Your task to perform on an android device: delete location history Image 0: 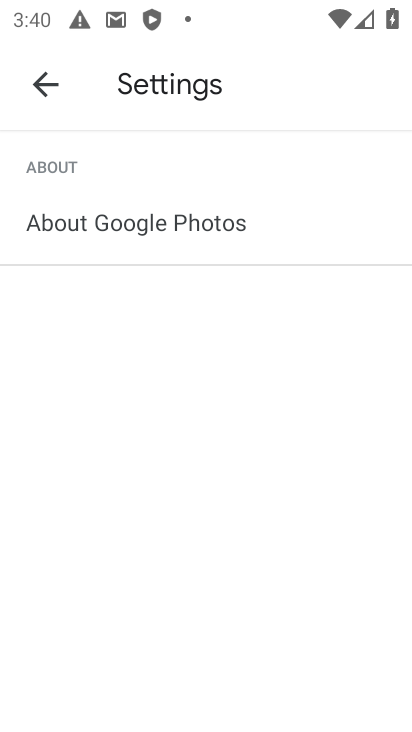
Step 0: press home button
Your task to perform on an android device: delete location history Image 1: 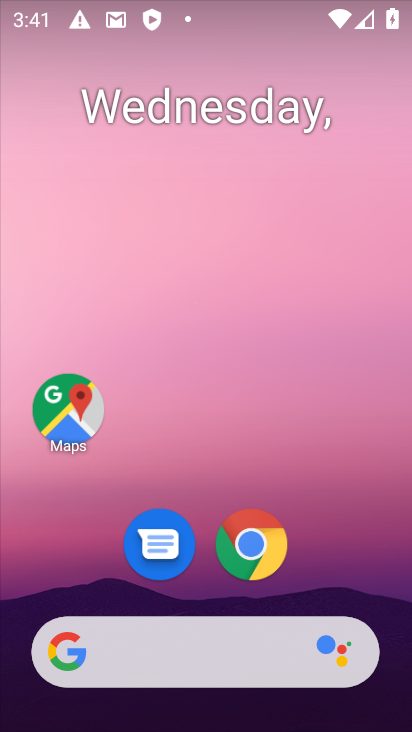
Step 1: drag from (344, 565) to (320, 36)
Your task to perform on an android device: delete location history Image 2: 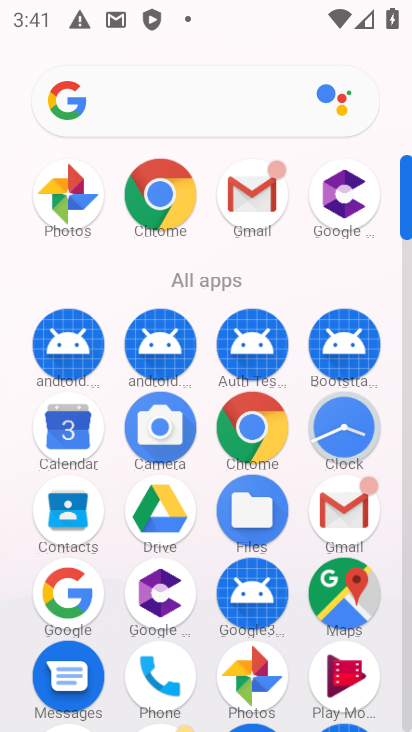
Step 2: drag from (197, 512) to (225, 127)
Your task to perform on an android device: delete location history Image 3: 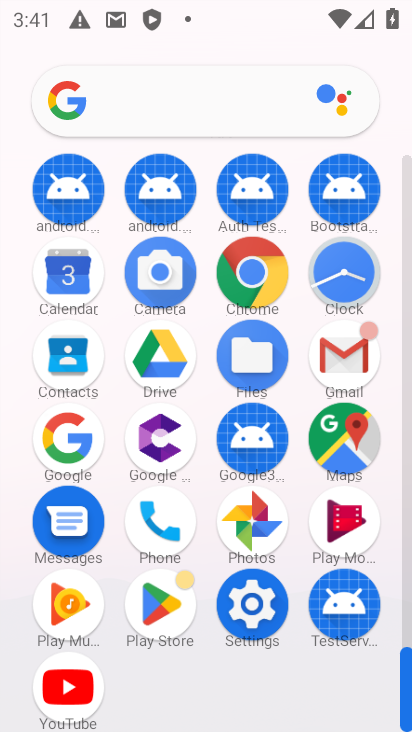
Step 3: click (256, 606)
Your task to perform on an android device: delete location history Image 4: 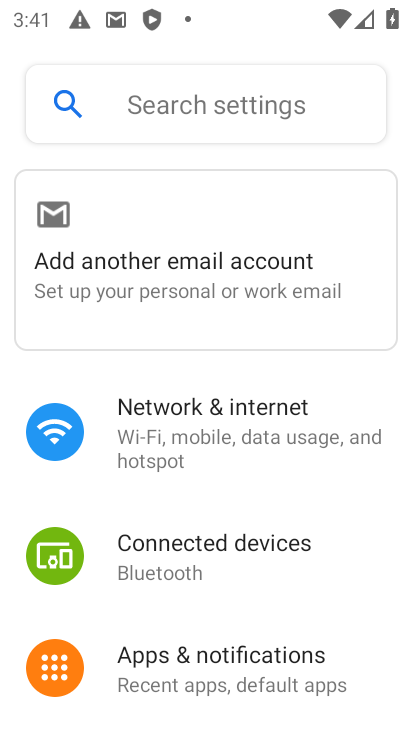
Step 4: press back button
Your task to perform on an android device: delete location history Image 5: 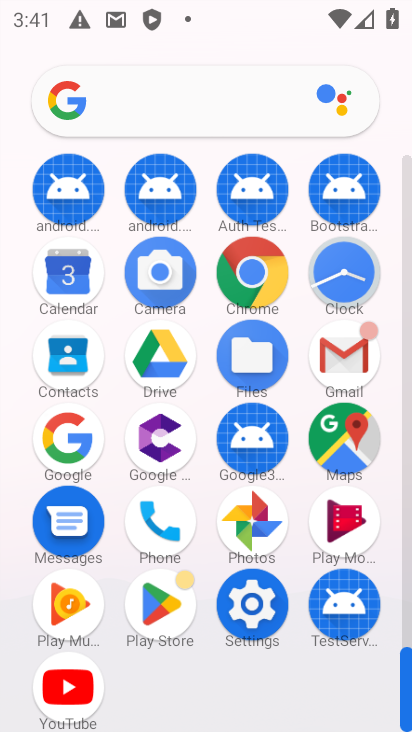
Step 5: click (345, 456)
Your task to perform on an android device: delete location history Image 6: 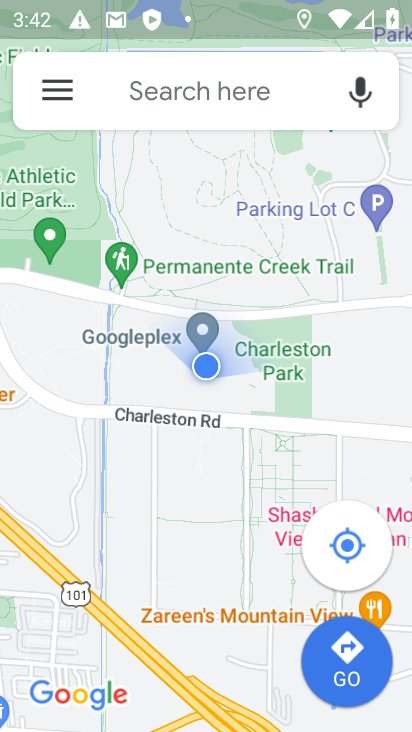
Step 6: click (51, 82)
Your task to perform on an android device: delete location history Image 7: 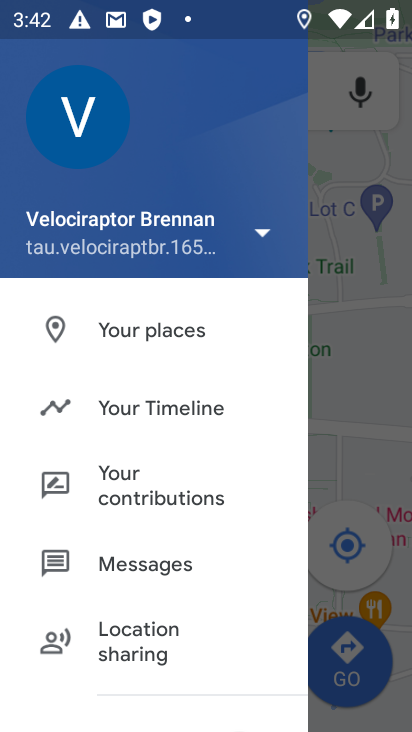
Step 7: click (156, 404)
Your task to perform on an android device: delete location history Image 8: 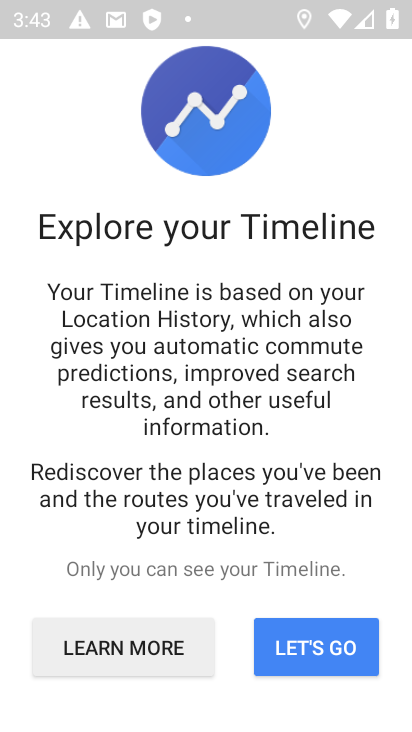
Step 8: click (320, 642)
Your task to perform on an android device: delete location history Image 9: 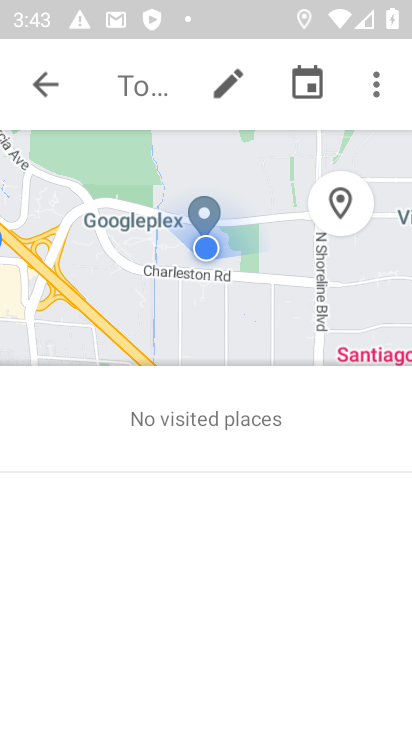
Step 9: click (373, 70)
Your task to perform on an android device: delete location history Image 10: 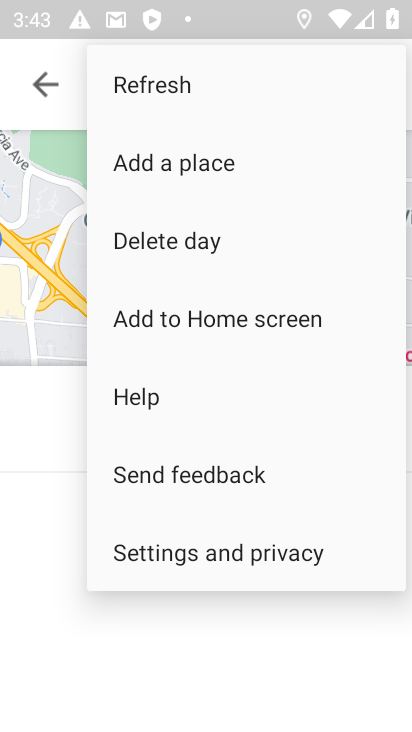
Step 10: click (227, 550)
Your task to perform on an android device: delete location history Image 11: 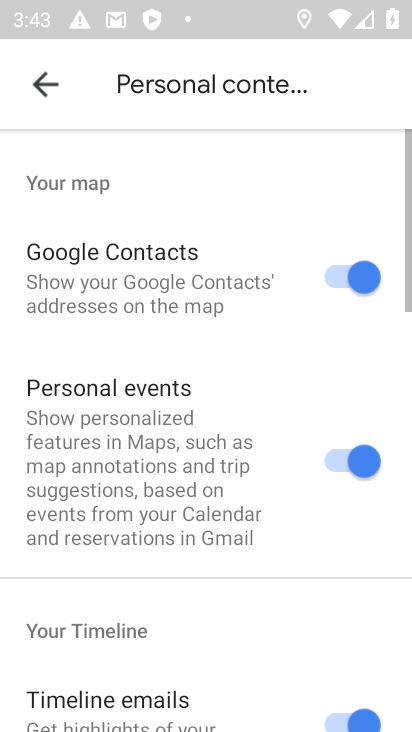
Step 11: drag from (266, 637) to (270, 149)
Your task to perform on an android device: delete location history Image 12: 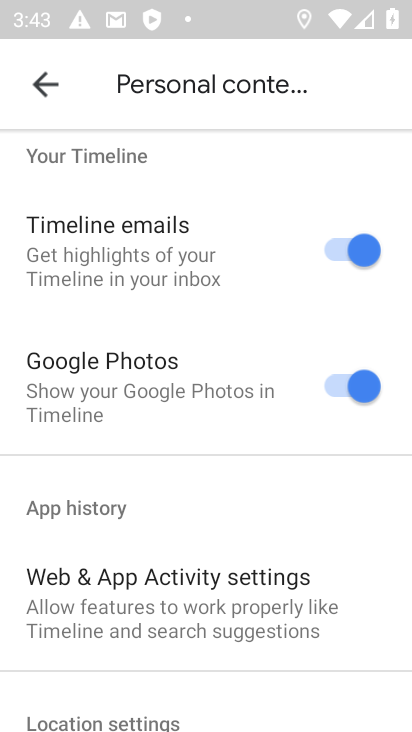
Step 12: drag from (268, 686) to (280, 234)
Your task to perform on an android device: delete location history Image 13: 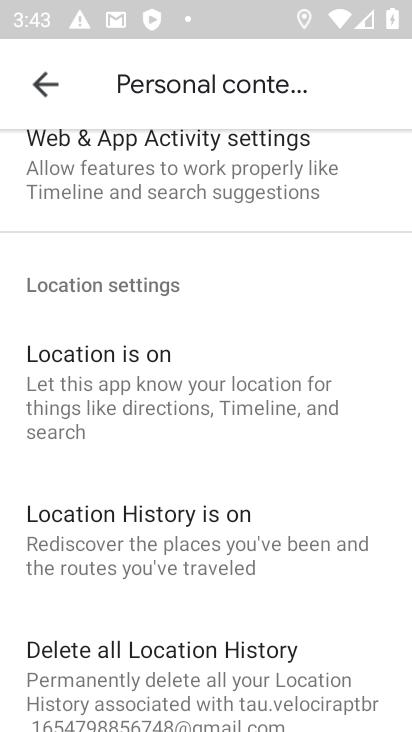
Step 13: click (182, 658)
Your task to perform on an android device: delete location history Image 14: 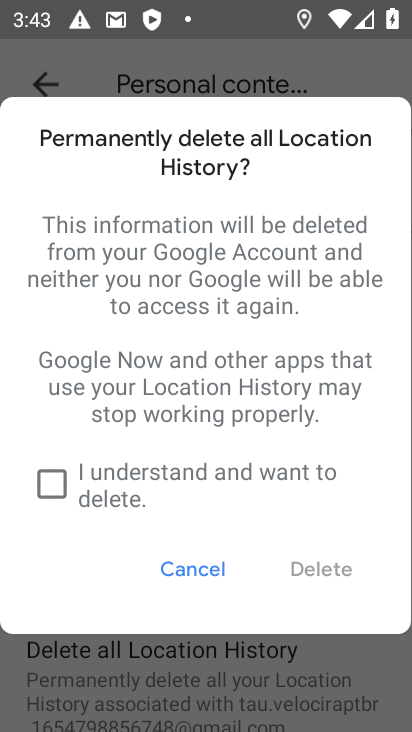
Step 14: click (49, 485)
Your task to perform on an android device: delete location history Image 15: 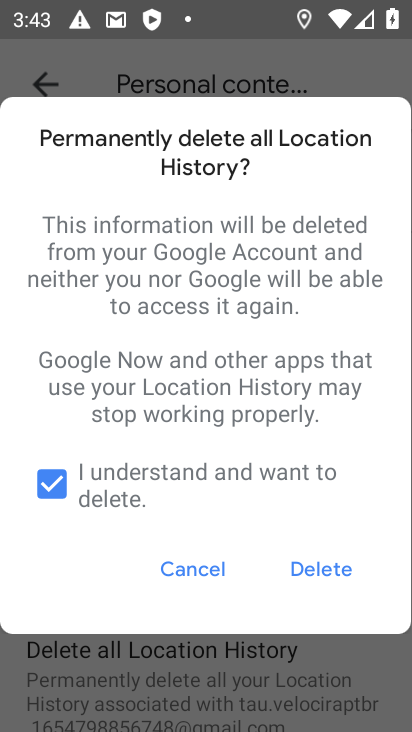
Step 15: click (332, 568)
Your task to perform on an android device: delete location history Image 16: 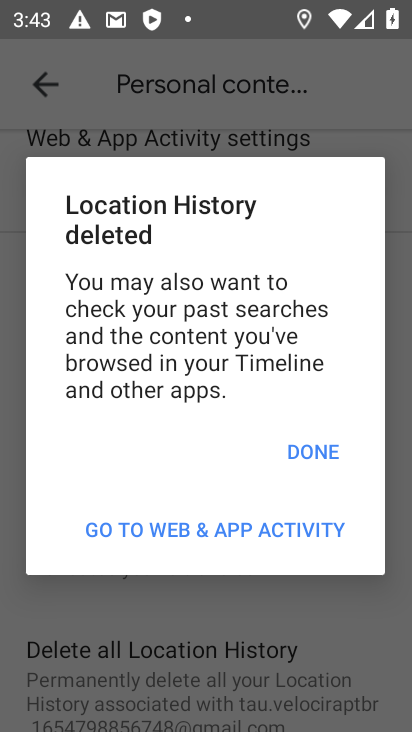
Step 16: click (322, 448)
Your task to perform on an android device: delete location history Image 17: 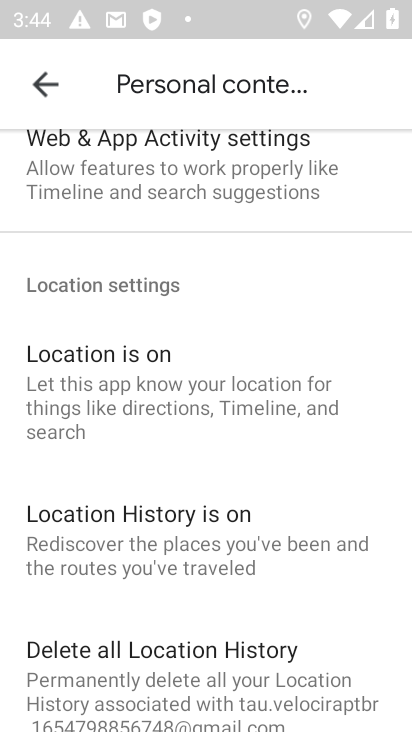
Step 17: task complete